Your task to perform on an android device: change the upload size in google photos Image 0: 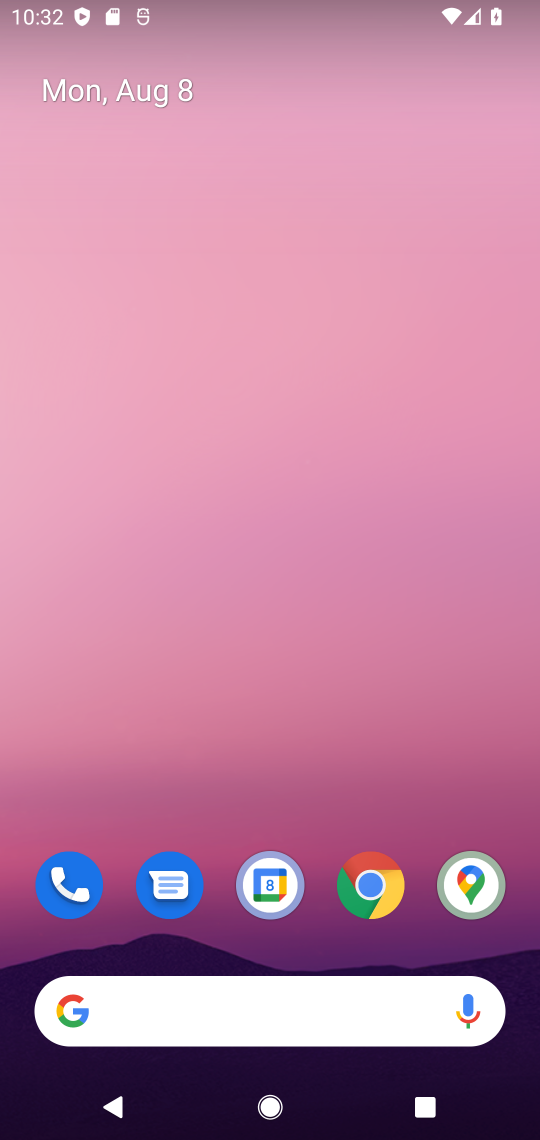
Step 0: drag from (169, 827) to (329, 147)
Your task to perform on an android device: change the upload size in google photos Image 1: 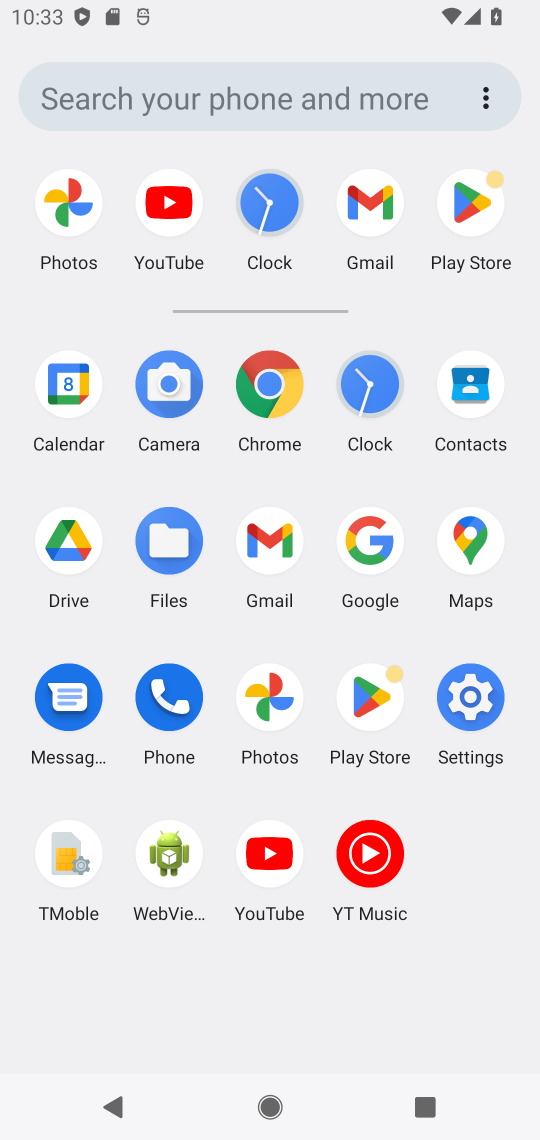
Step 1: click (264, 679)
Your task to perform on an android device: change the upload size in google photos Image 2: 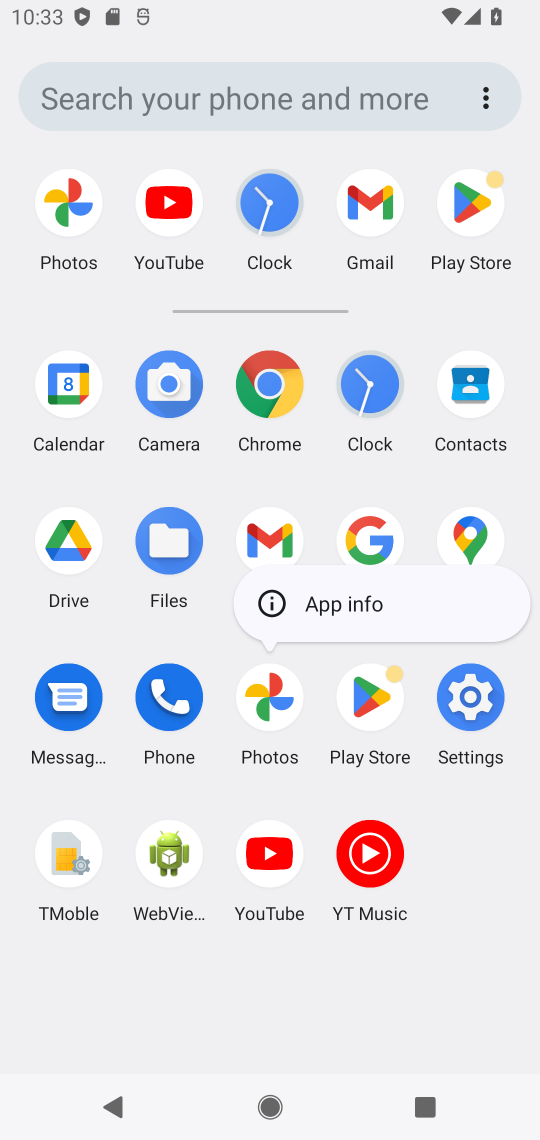
Step 2: click (264, 679)
Your task to perform on an android device: change the upload size in google photos Image 3: 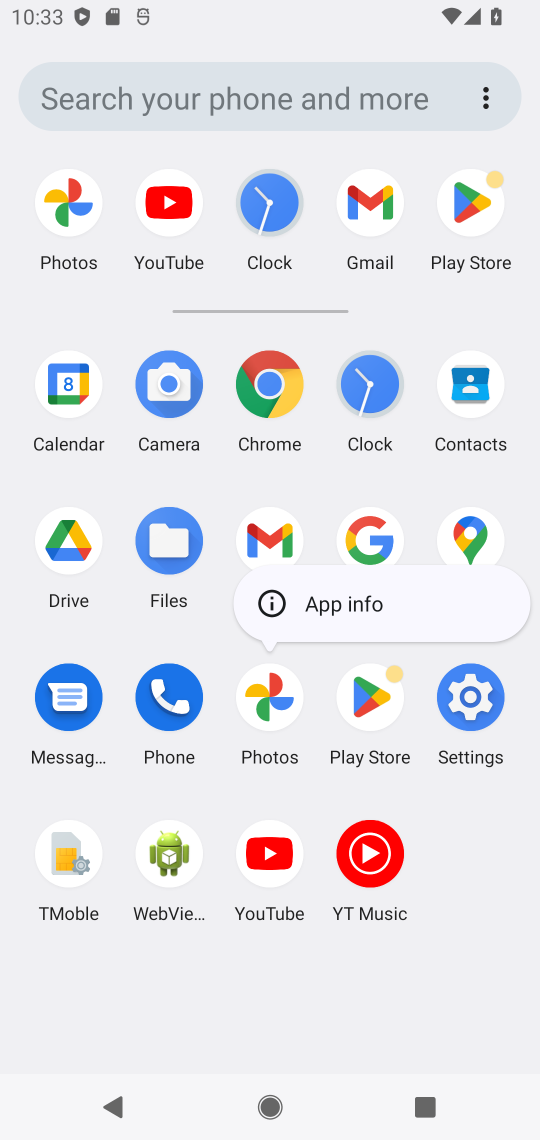
Step 3: click (282, 714)
Your task to perform on an android device: change the upload size in google photos Image 4: 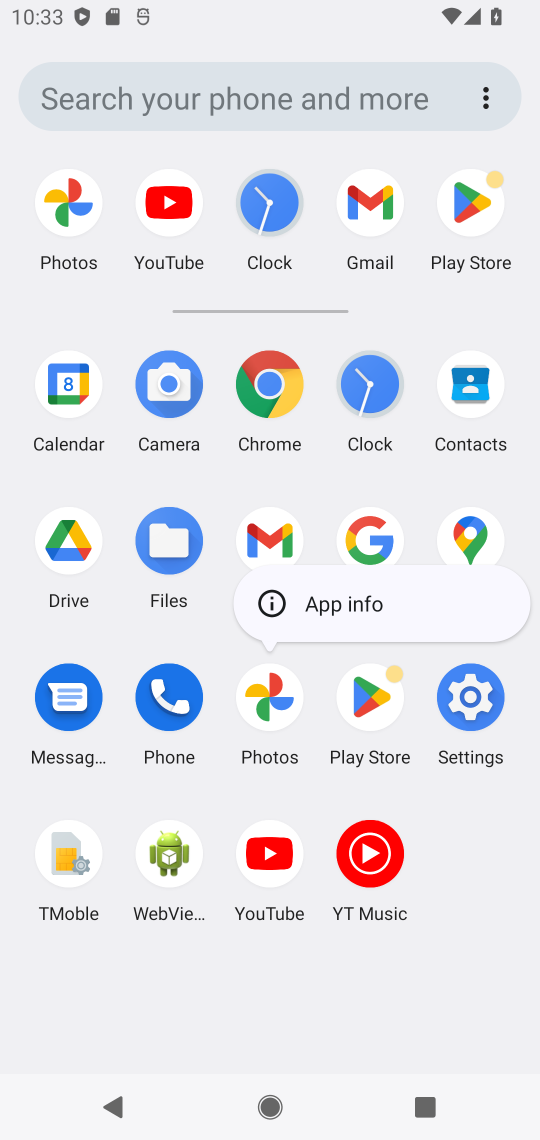
Step 4: click (269, 702)
Your task to perform on an android device: change the upload size in google photos Image 5: 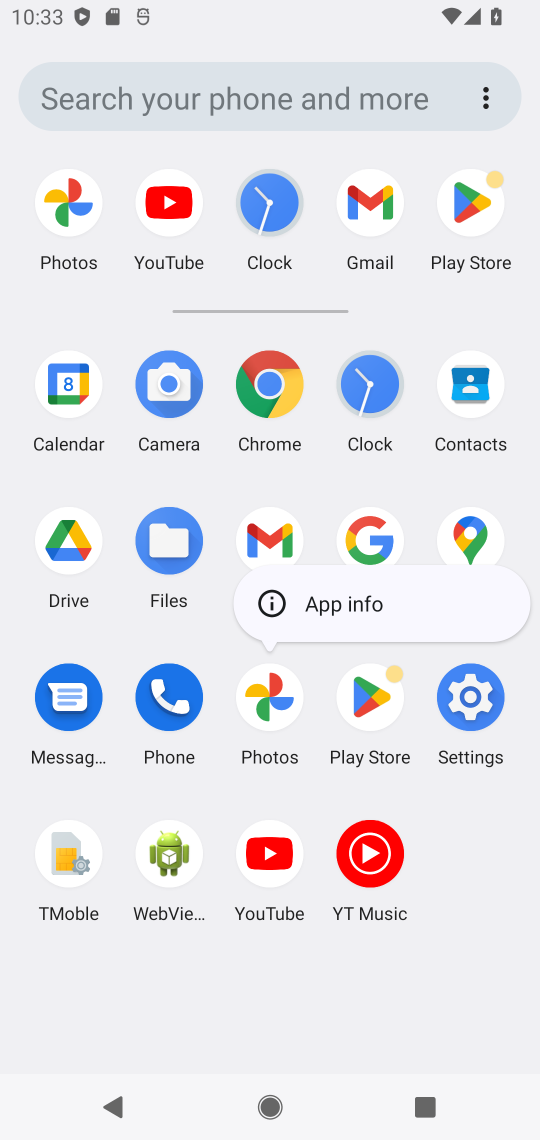
Step 5: click (272, 711)
Your task to perform on an android device: change the upload size in google photos Image 6: 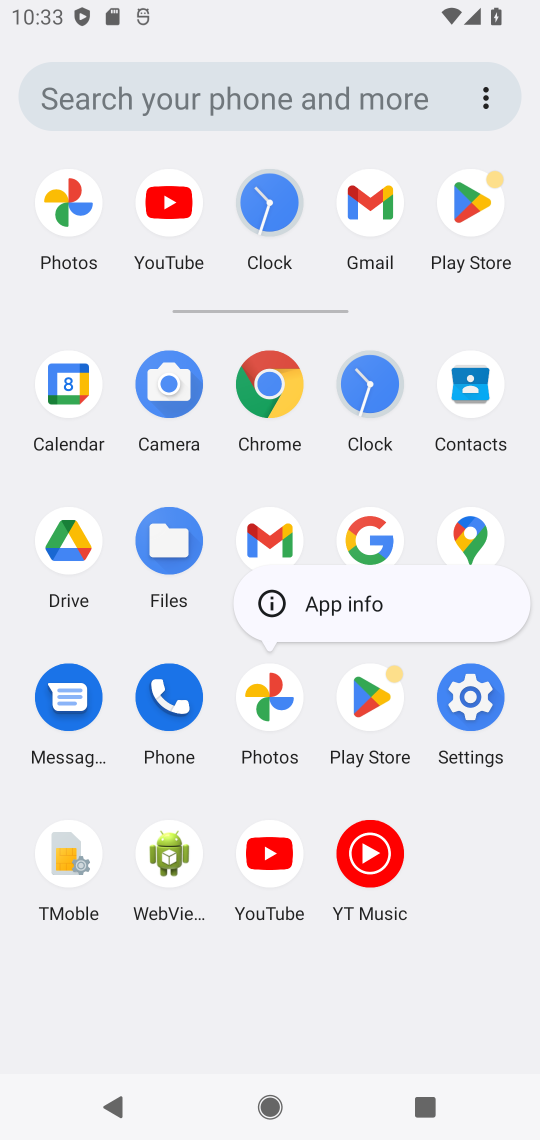
Step 6: click (272, 711)
Your task to perform on an android device: change the upload size in google photos Image 7: 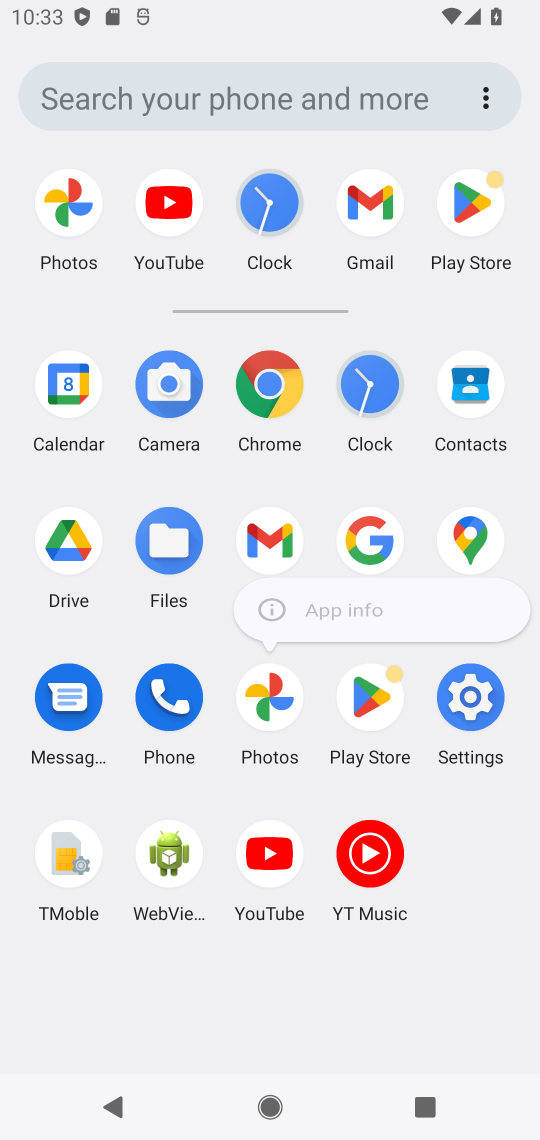
Step 7: click (272, 711)
Your task to perform on an android device: change the upload size in google photos Image 8: 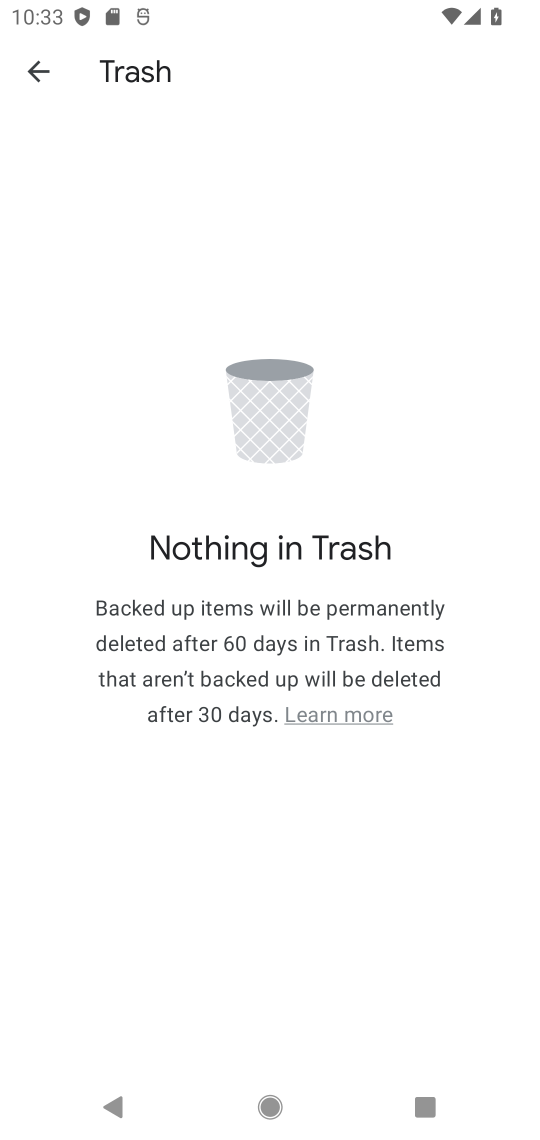
Step 8: click (35, 73)
Your task to perform on an android device: change the upload size in google photos Image 9: 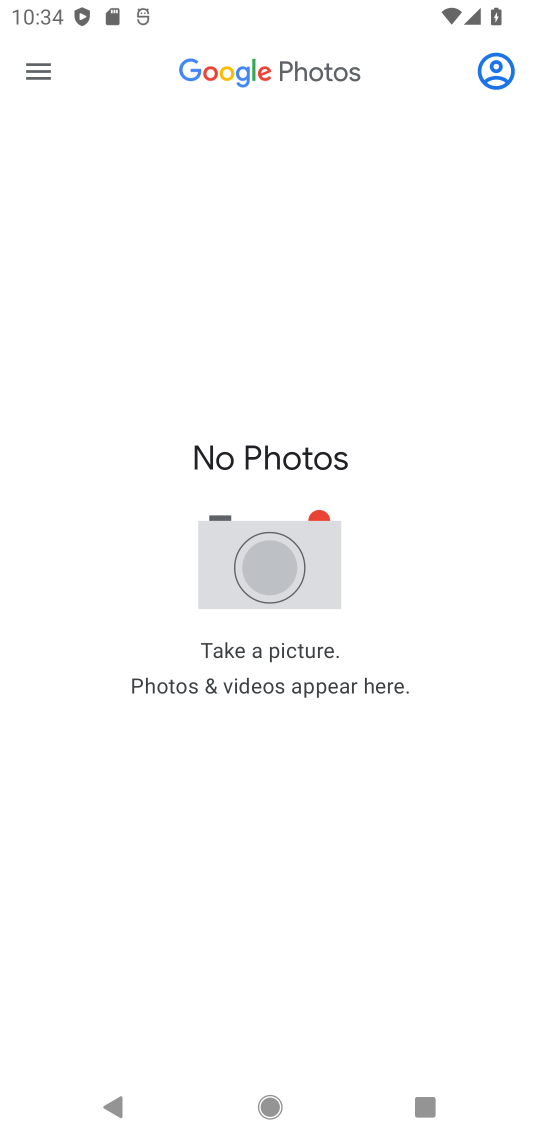
Step 9: click (37, 53)
Your task to perform on an android device: change the upload size in google photos Image 10: 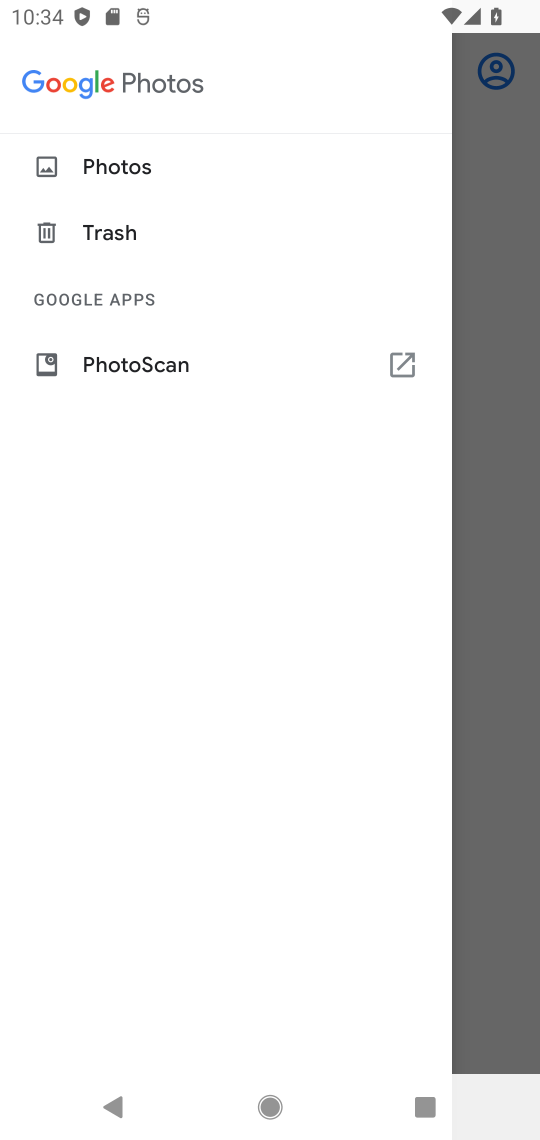
Step 10: click (507, 109)
Your task to perform on an android device: change the upload size in google photos Image 11: 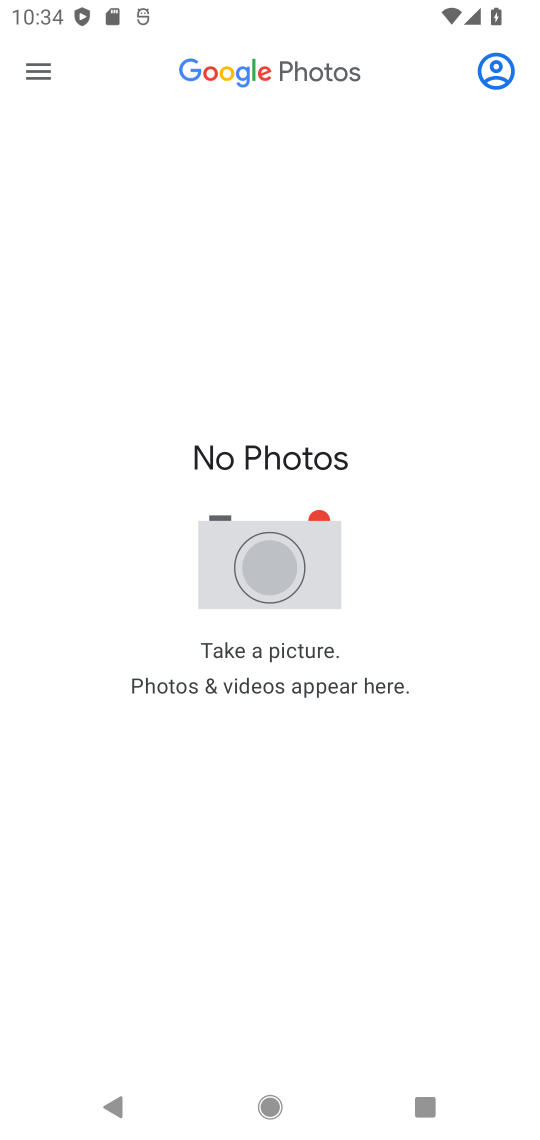
Step 11: click (507, 86)
Your task to perform on an android device: change the upload size in google photos Image 12: 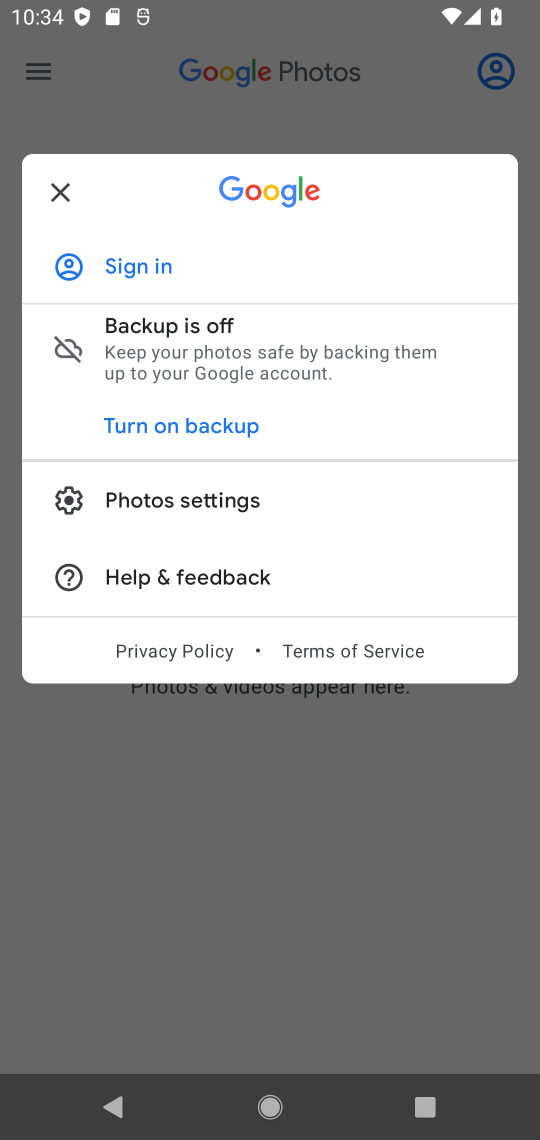
Step 12: click (261, 487)
Your task to perform on an android device: change the upload size in google photos Image 13: 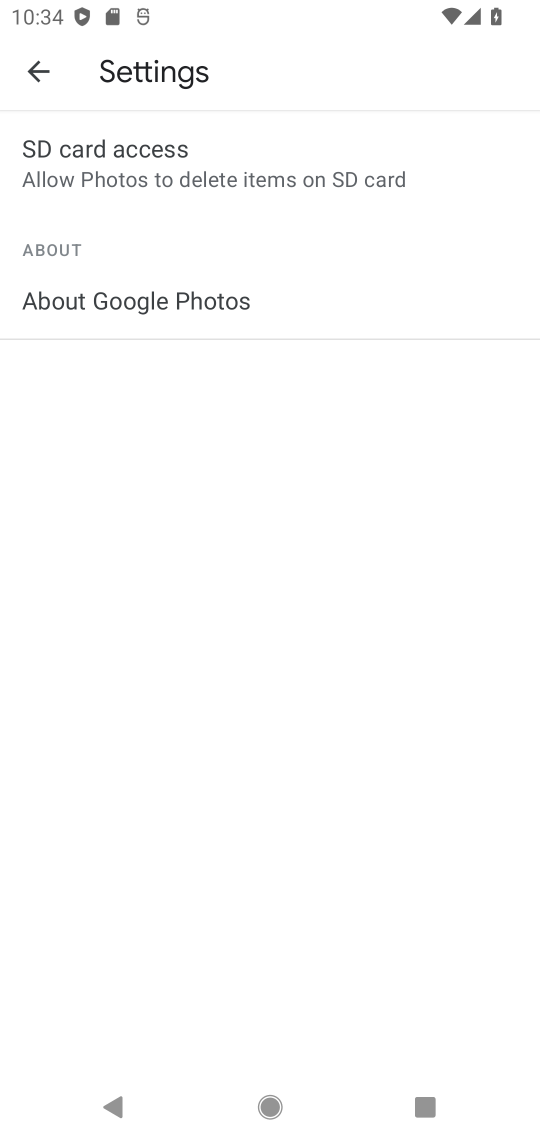
Step 13: task complete